Your task to perform on an android device: What is the news today? Image 0: 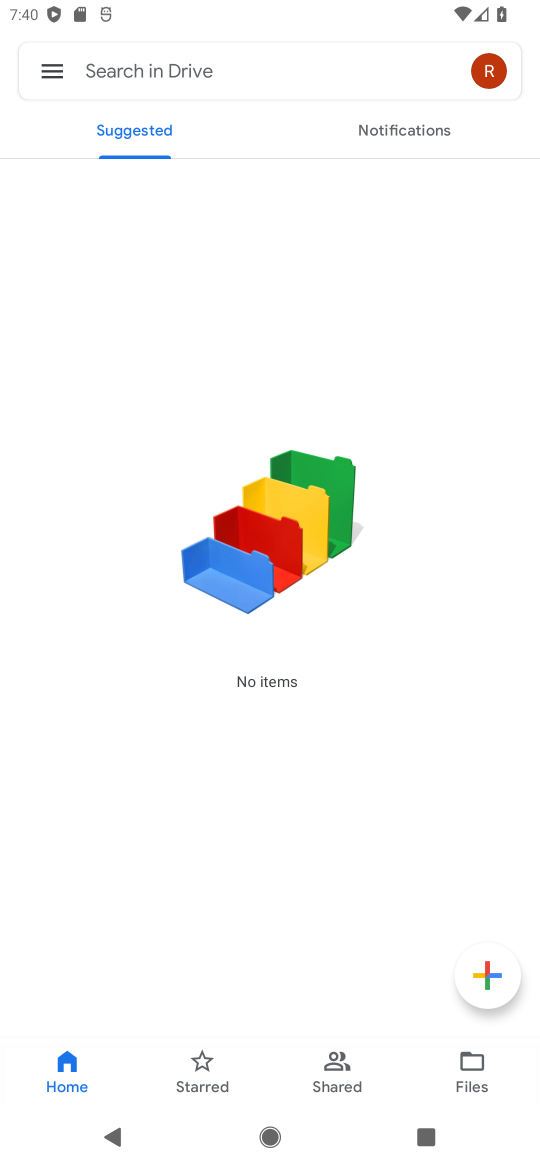
Step 0: press home button
Your task to perform on an android device: What is the news today? Image 1: 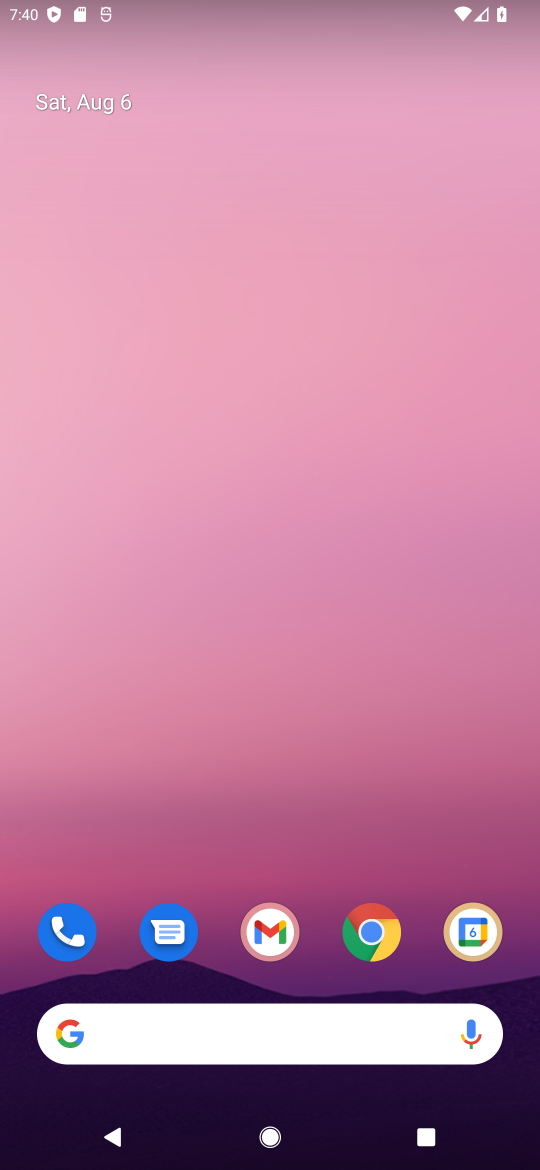
Step 1: click (209, 1030)
Your task to perform on an android device: What is the news today? Image 2: 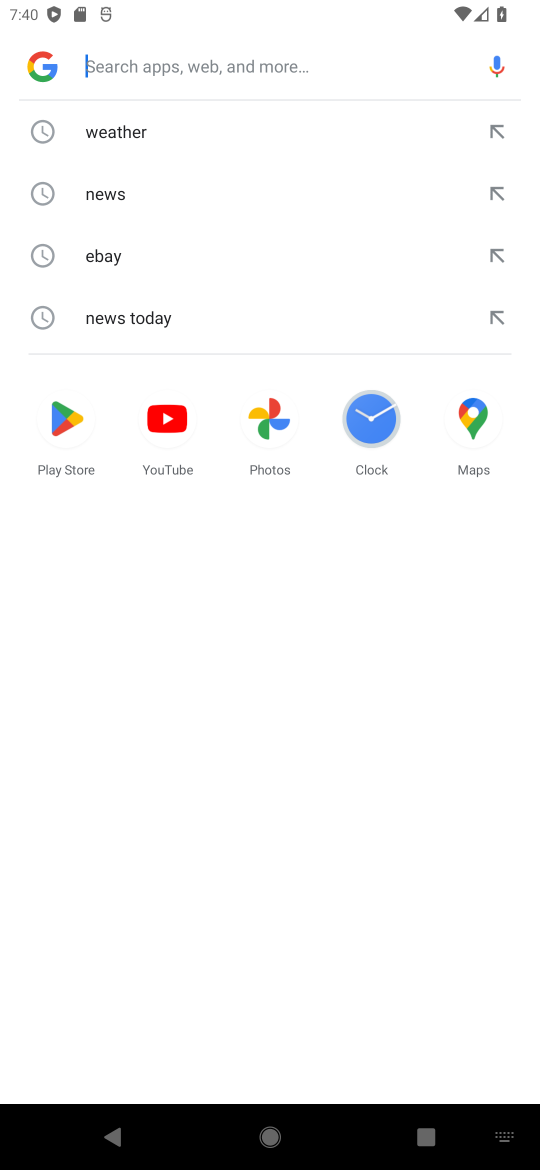
Step 2: click (101, 210)
Your task to perform on an android device: What is the news today? Image 3: 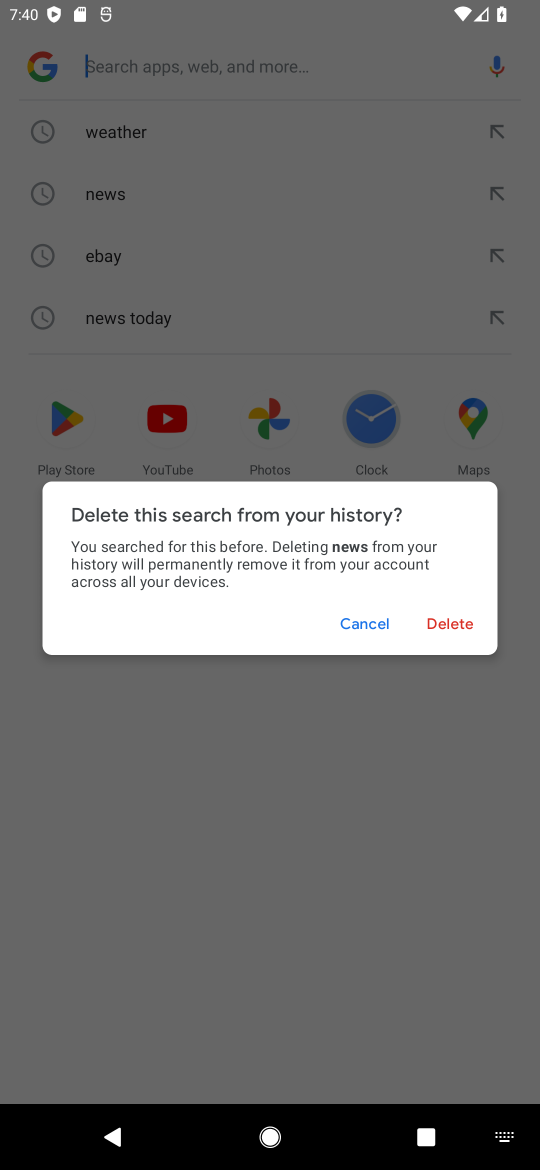
Step 3: click (340, 625)
Your task to perform on an android device: What is the news today? Image 4: 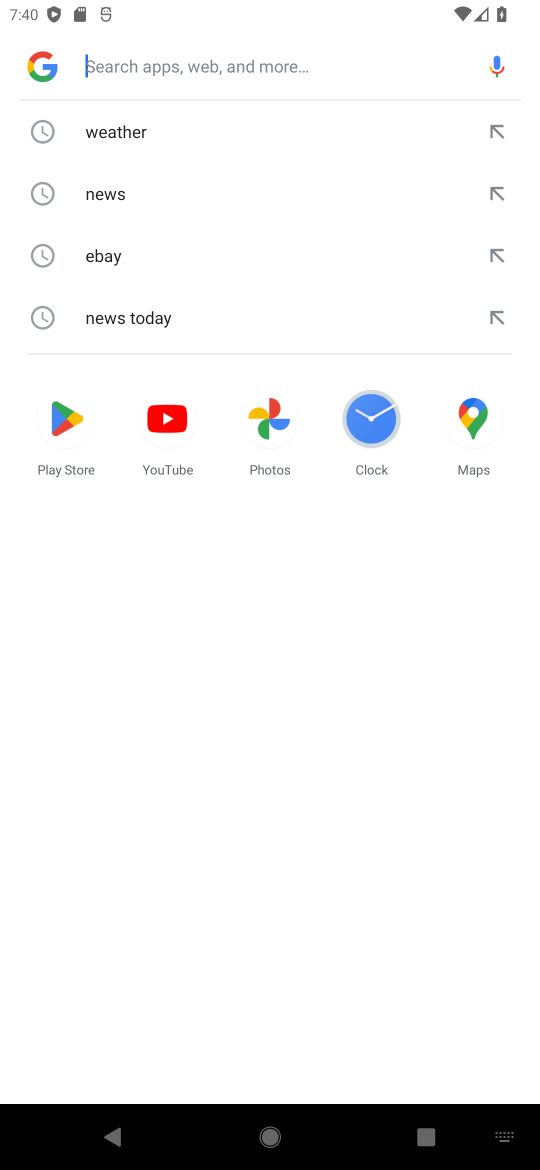
Step 4: click (106, 187)
Your task to perform on an android device: What is the news today? Image 5: 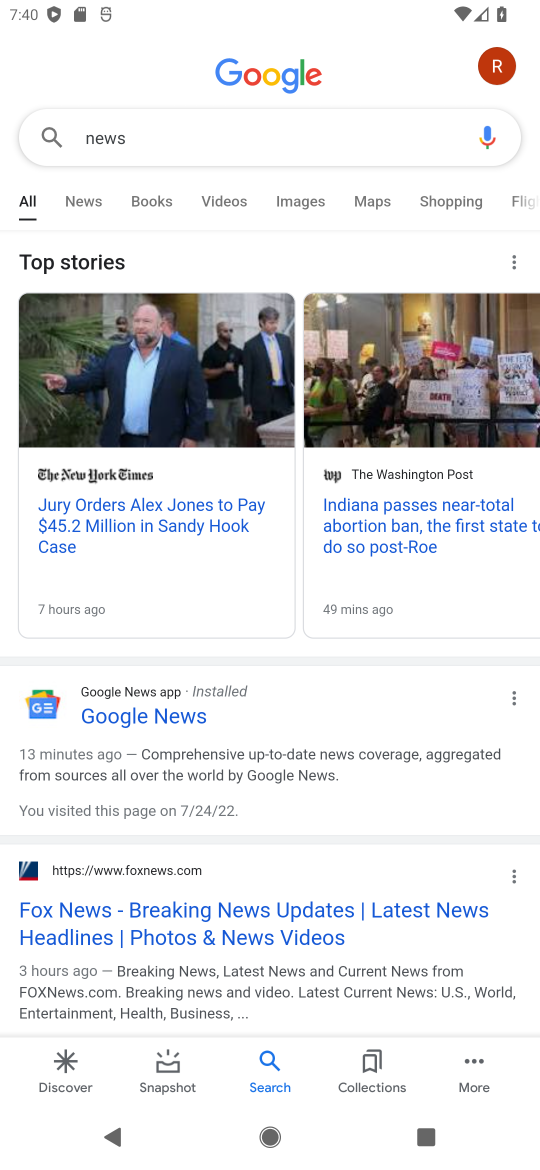
Step 5: click (82, 194)
Your task to perform on an android device: What is the news today? Image 6: 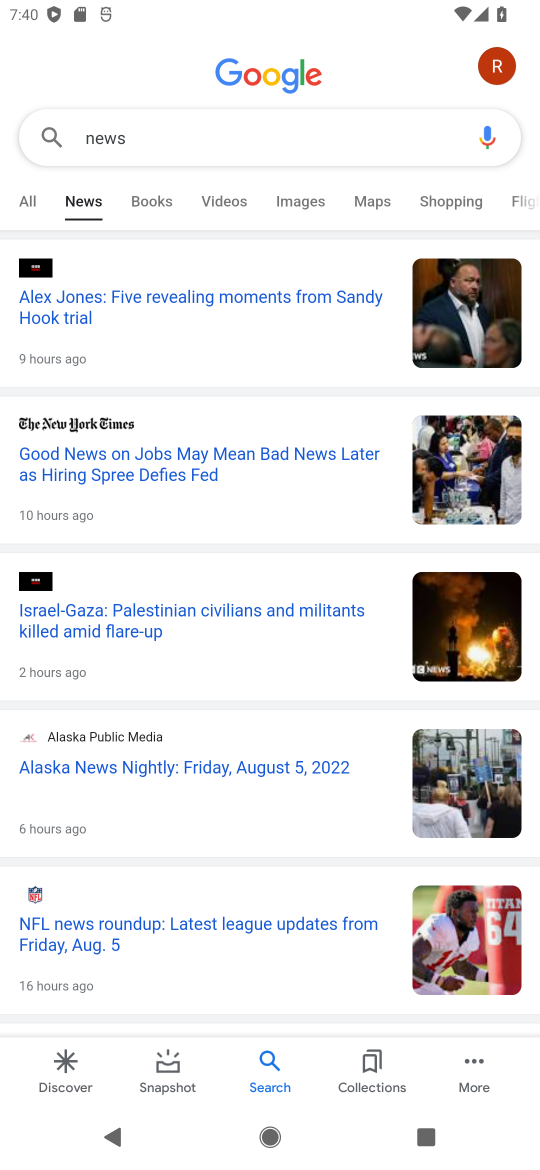
Step 6: task complete